Your task to perform on an android device: turn on notifications settings in the gmail app Image 0: 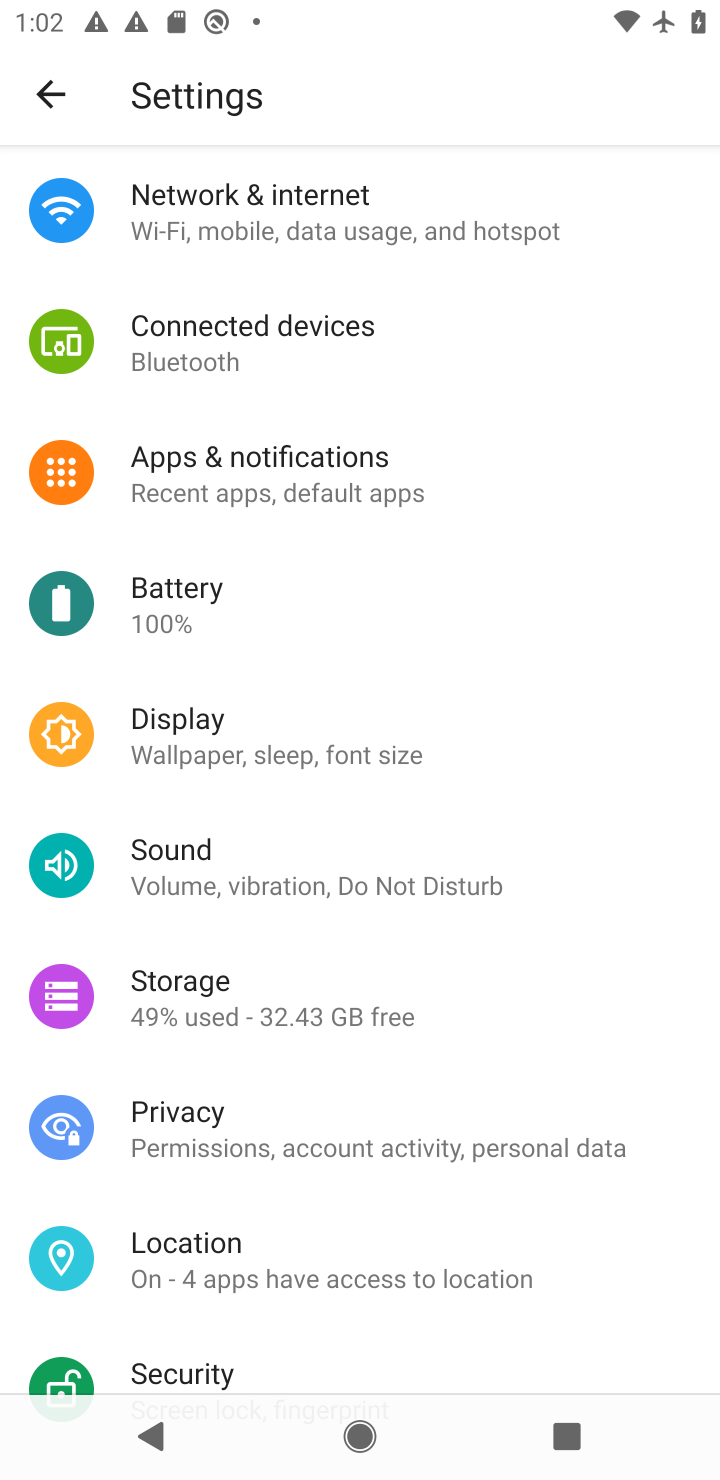
Step 0: click (273, 472)
Your task to perform on an android device: turn on notifications settings in the gmail app Image 1: 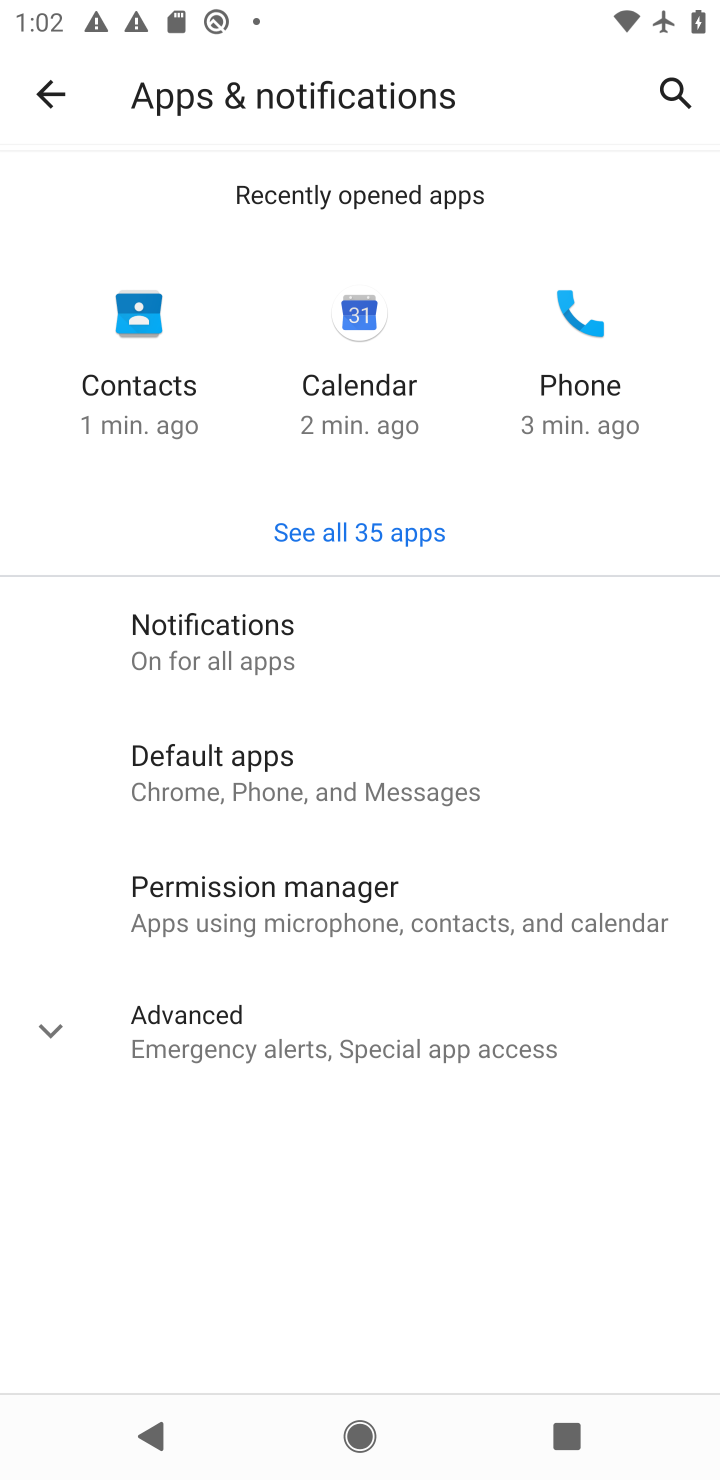
Step 1: press home button
Your task to perform on an android device: turn on notifications settings in the gmail app Image 2: 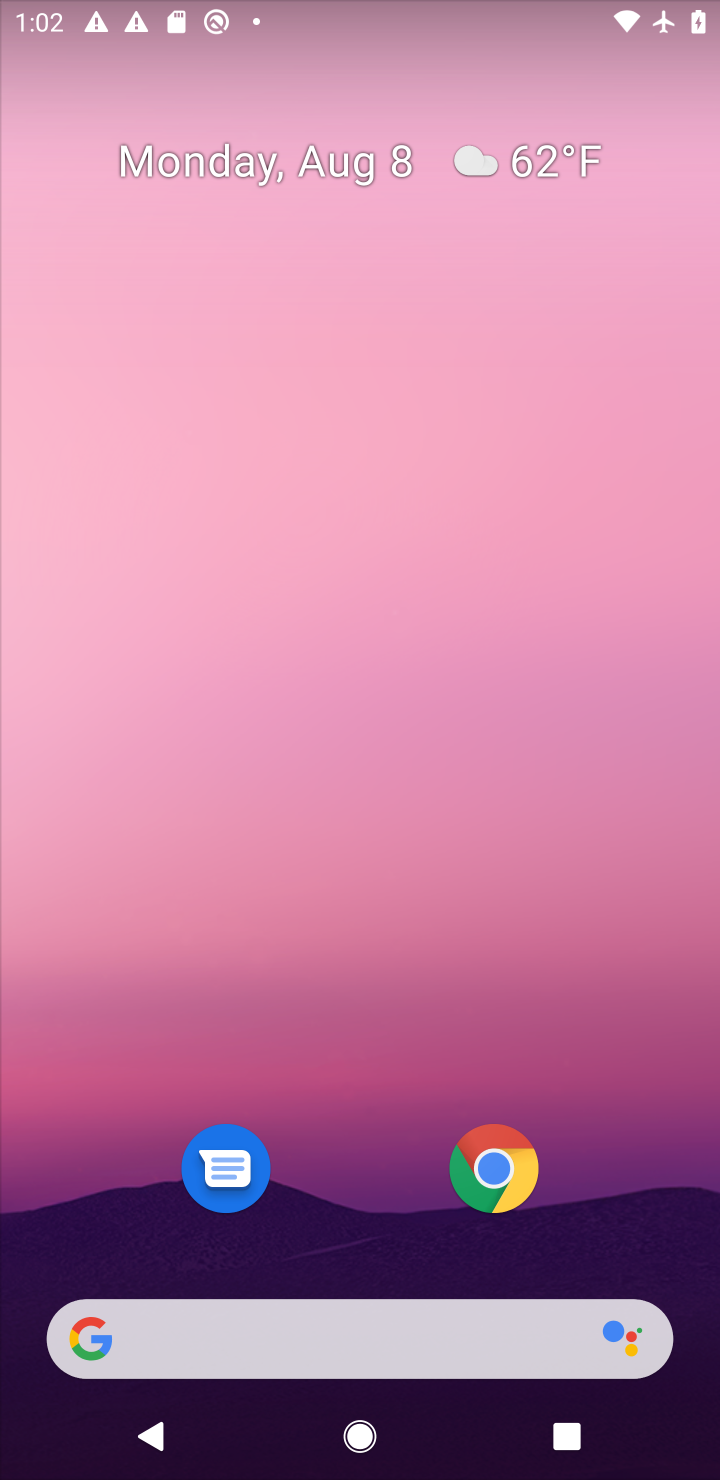
Step 2: drag from (346, 1273) to (267, 253)
Your task to perform on an android device: turn on notifications settings in the gmail app Image 3: 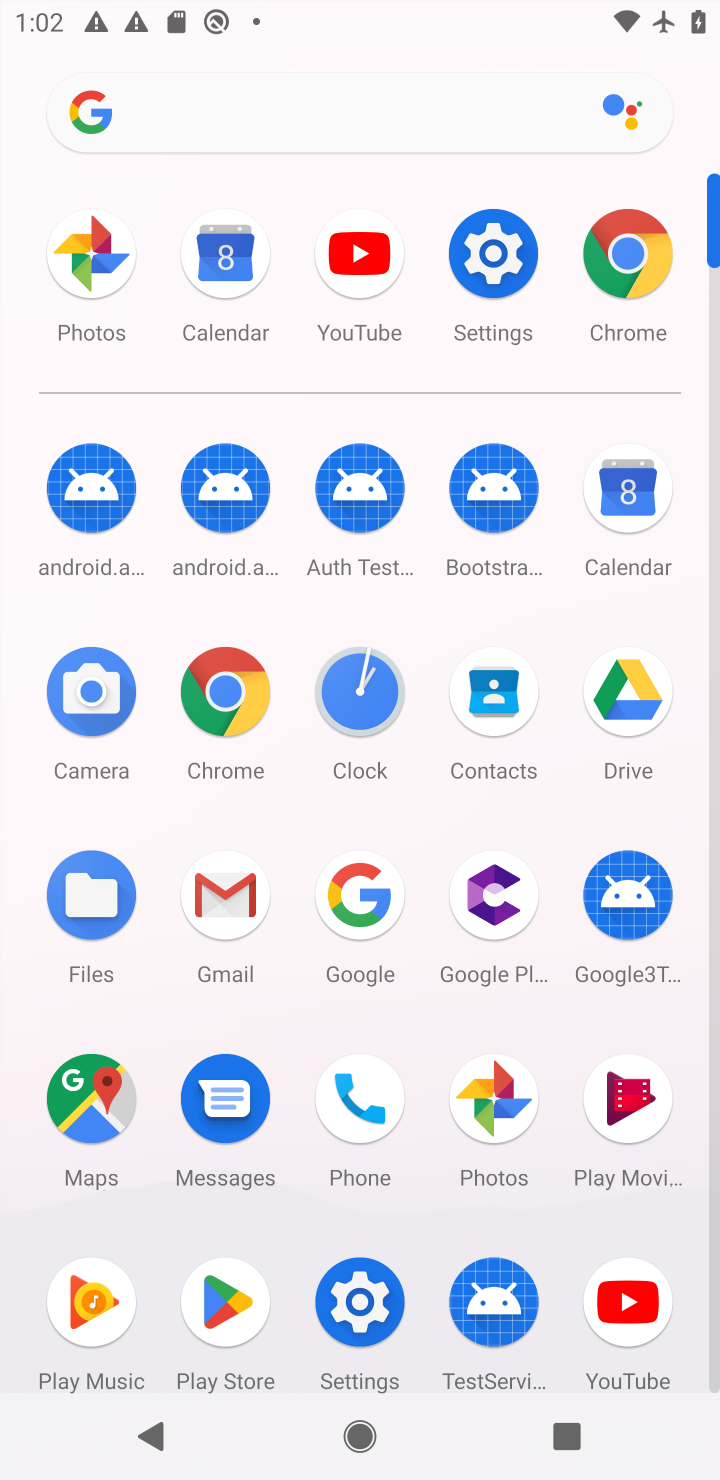
Step 3: click (251, 923)
Your task to perform on an android device: turn on notifications settings in the gmail app Image 4: 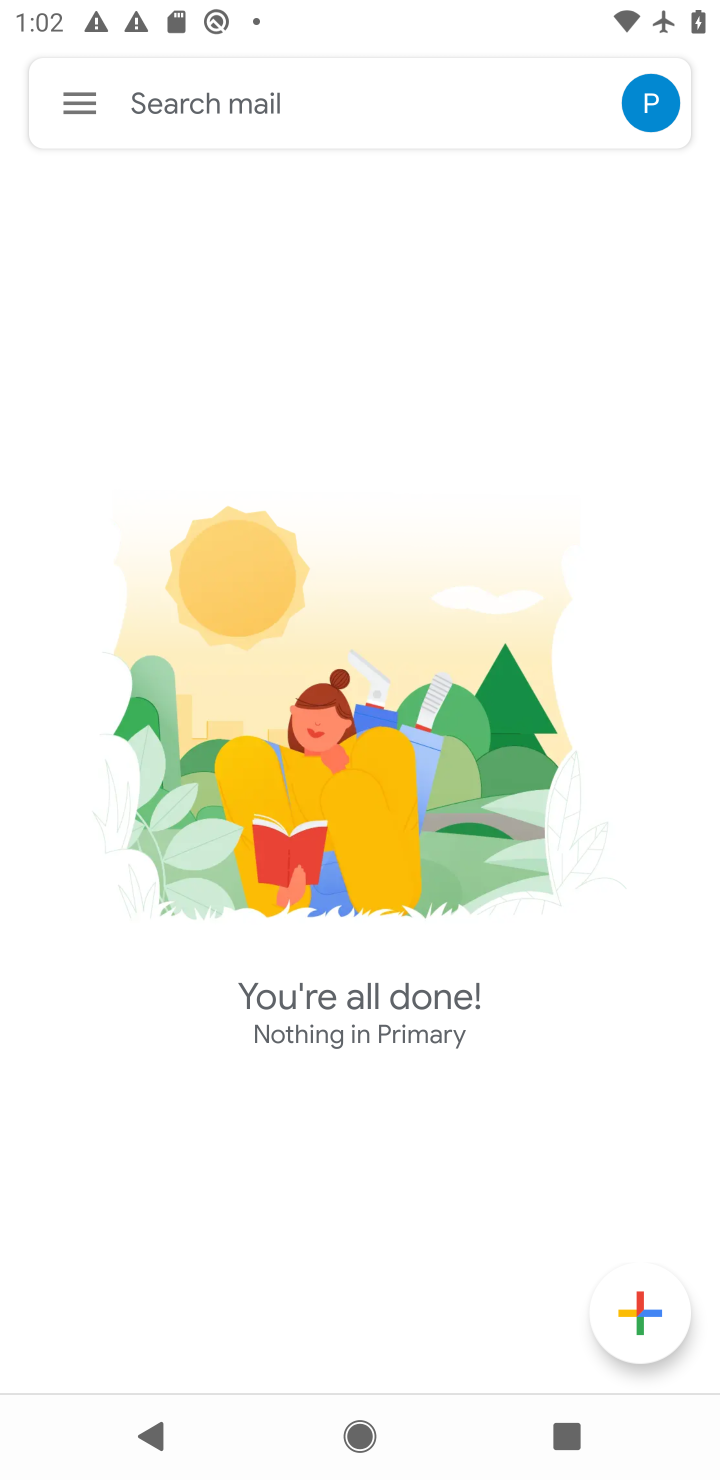
Step 4: click (62, 85)
Your task to perform on an android device: turn on notifications settings in the gmail app Image 5: 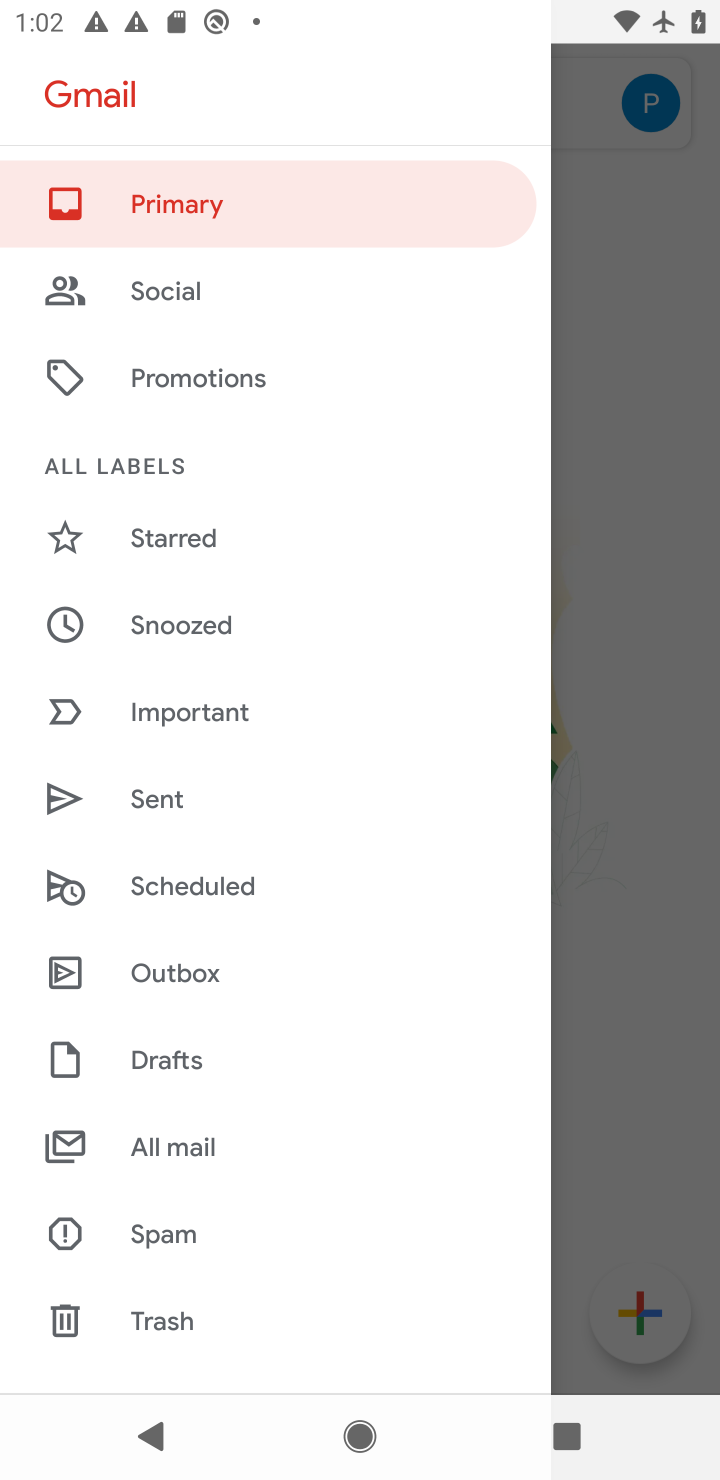
Step 5: task complete